Your task to perform on an android device: Open Maps and search for coffee Image 0: 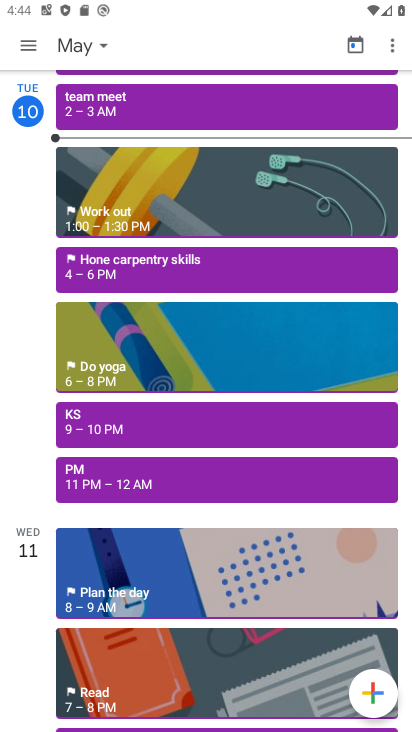
Step 0: press home button
Your task to perform on an android device: Open Maps and search for coffee Image 1: 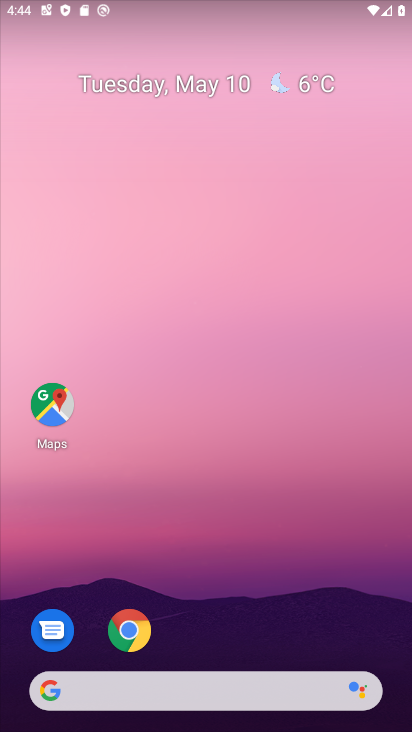
Step 1: drag from (338, 602) to (298, 134)
Your task to perform on an android device: Open Maps and search for coffee Image 2: 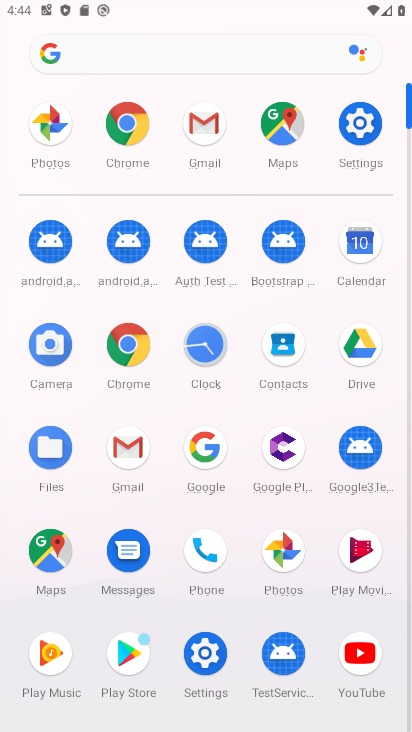
Step 2: click (45, 544)
Your task to perform on an android device: Open Maps and search for coffee Image 3: 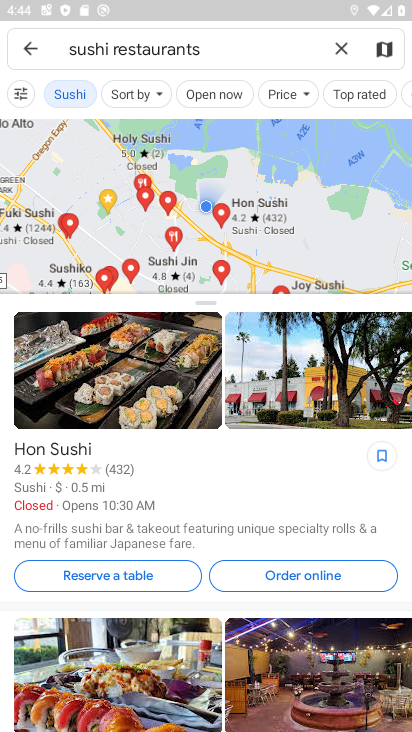
Step 3: click (249, 52)
Your task to perform on an android device: Open Maps and search for coffee Image 4: 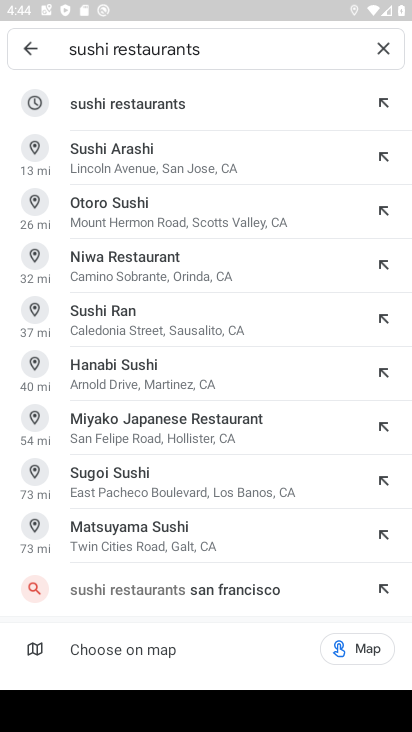
Step 4: click (380, 47)
Your task to perform on an android device: Open Maps and search for coffee Image 5: 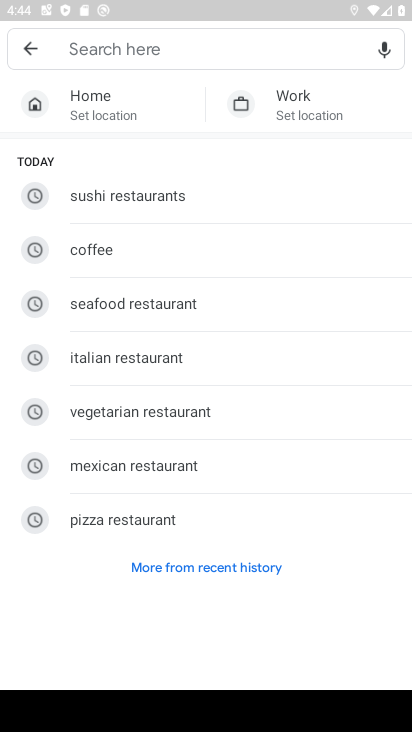
Step 5: type "coffee"
Your task to perform on an android device: Open Maps and search for coffee Image 6: 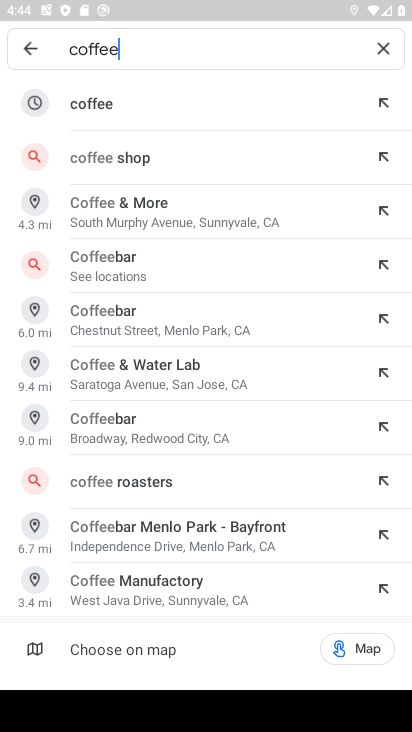
Step 6: click (96, 87)
Your task to perform on an android device: Open Maps and search for coffee Image 7: 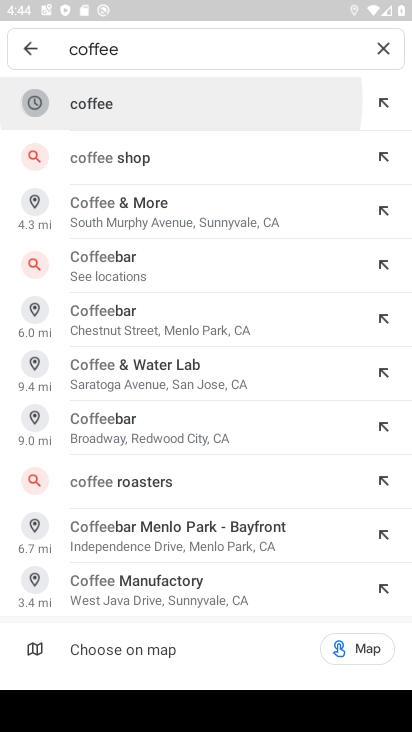
Step 7: click (92, 97)
Your task to perform on an android device: Open Maps and search for coffee Image 8: 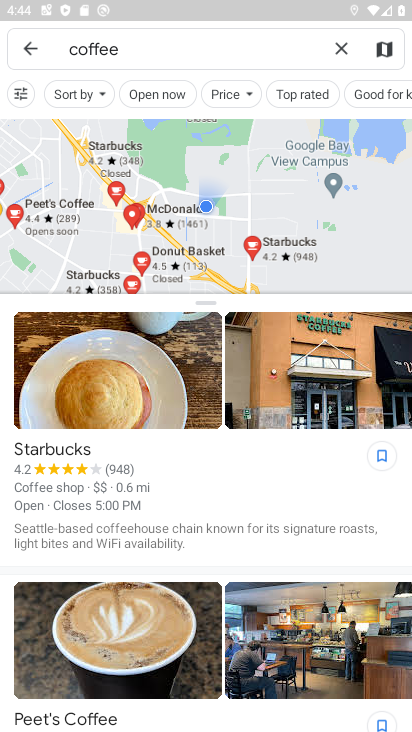
Step 8: task complete